Your task to perform on an android device: Open calendar and show me the fourth week of next month Image 0: 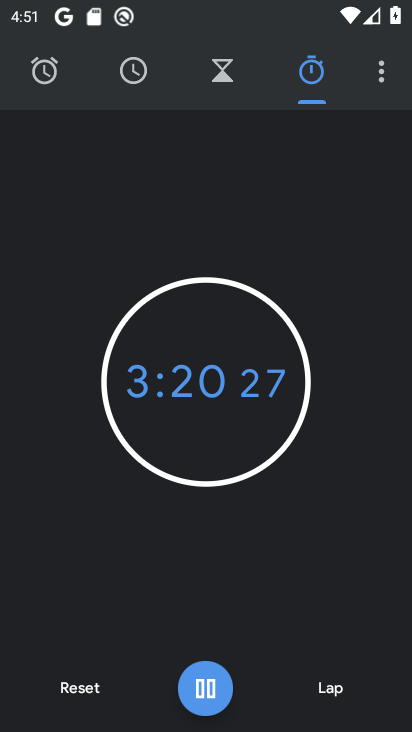
Step 0: press home button
Your task to perform on an android device: Open calendar and show me the fourth week of next month Image 1: 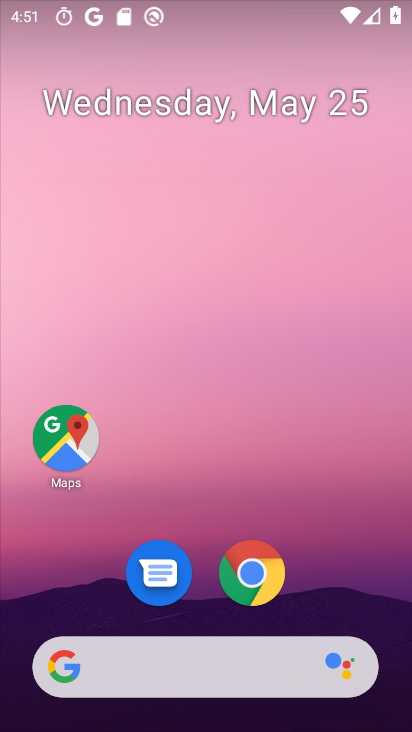
Step 1: drag from (213, 707) to (213, 31)
Your task to perform on an android device: Open calendar and show me the fourth week of next month Image 2: 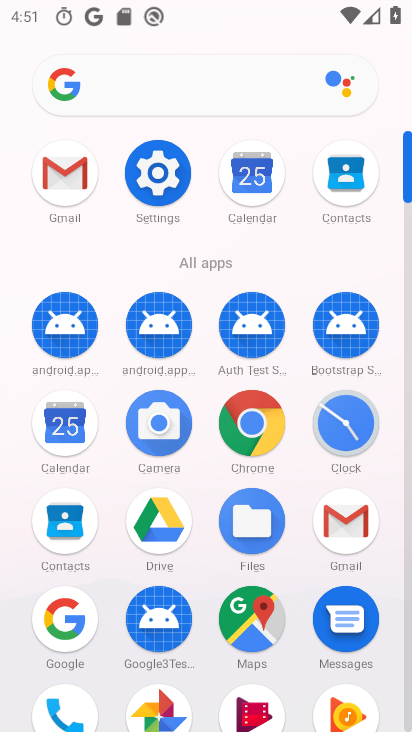
Step 2: click (56, 434)
Your task to perform on an android device: Open calendar and show me the fourth week of next month Image 3: 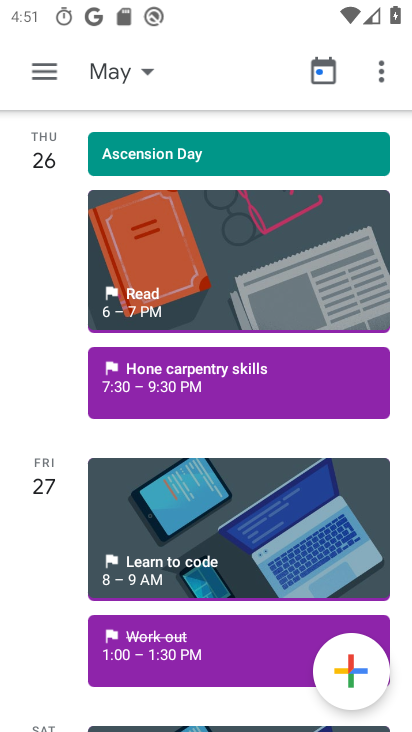
Step 3: click (115, 71)
Your task to perform on an android device: Open calendar and show me the fourth week of next month Image 4: 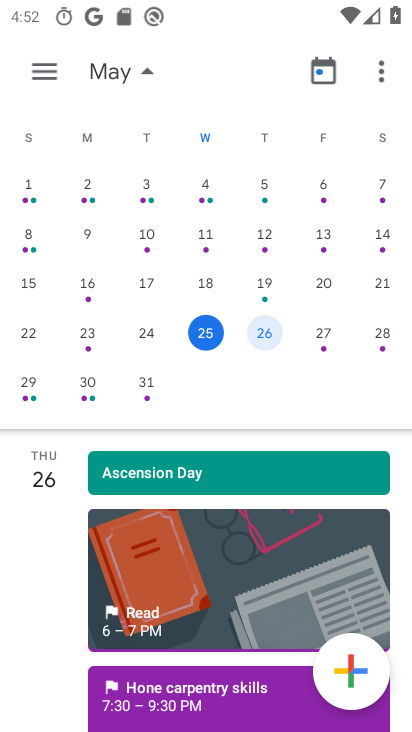
Step 4: drag from (375, 306) to (3, 317)
Your task to perform on an android device: Open calendar and show me the fourth week of next month Image 5: 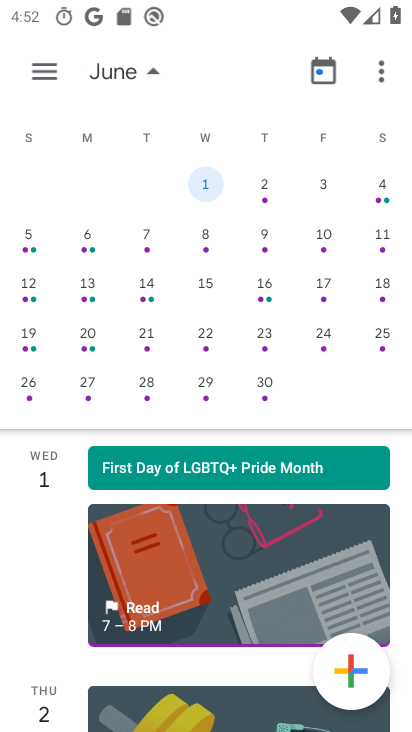
Step 5: click (88, 376)
Your task to perform on an android device: Open calendar and show me the fourth week of next month Image 6: 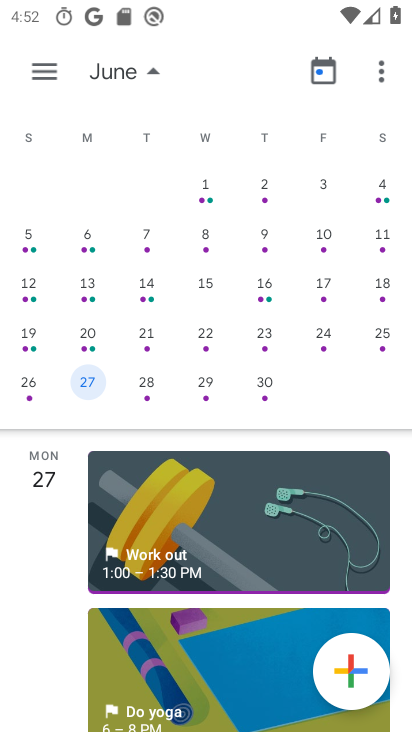
Step 6: click (49, 71)
Your task to perform on an android device: Open calendar and show me the fourth week of next month Image 7: 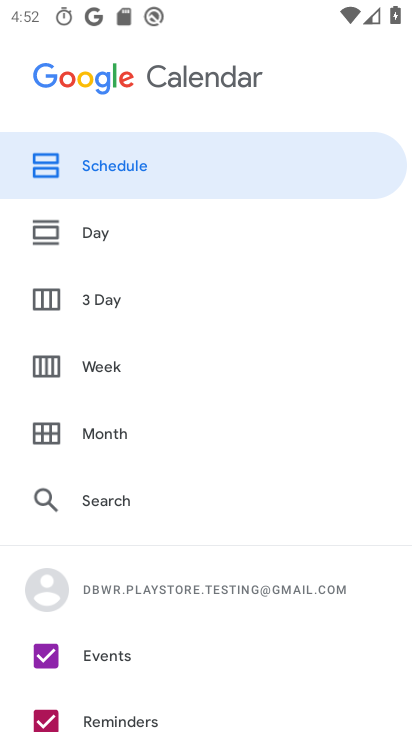
Step 7: click (100, 367)
Your task to perform on an android device: Open calendar and show me the fourth week of next month Image 8: 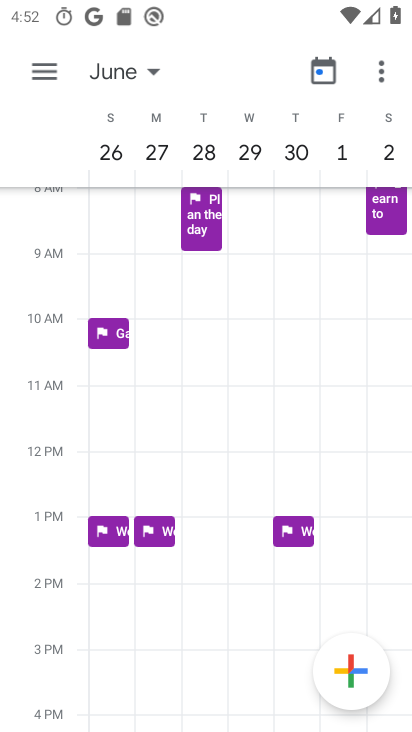
Step 8: task complete